Your task to perform on an android device: Open Yahoo.com Image 0: 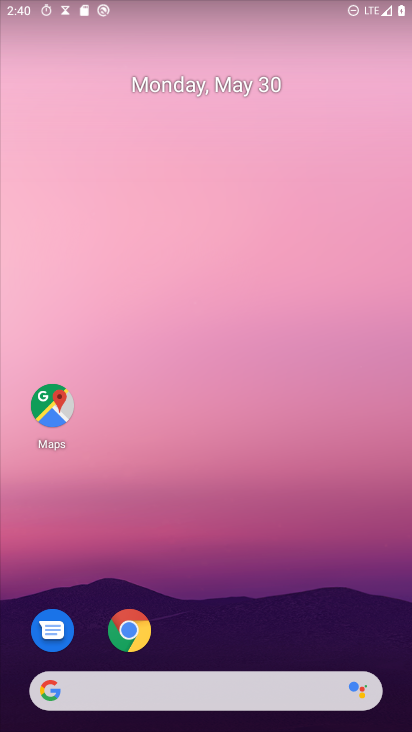
Step 0: drag from (288, 713) to (310, 203)
Your task to perform on an android device: Open Yahoo.com Image 1: 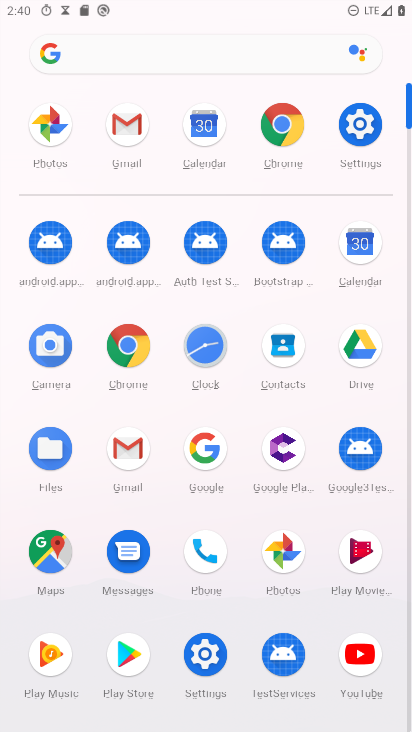
Step 1: click (294, 122)
Your task to perform on an android device: Open Yahoo.com Image 2: 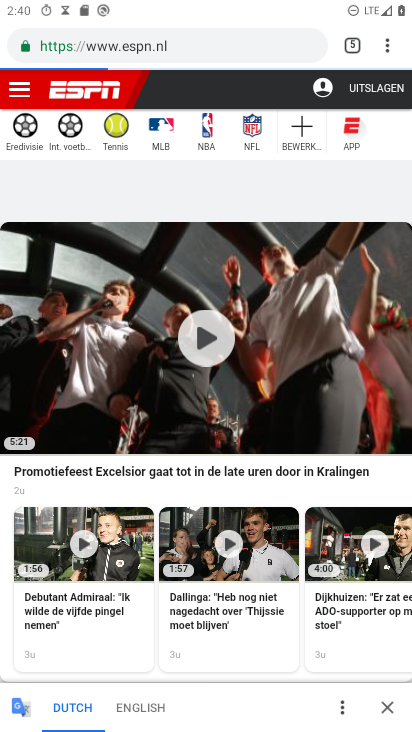
Step 2: click (190, 45)
Your task to perform on an android device: Open Yahoo.com Image 3: 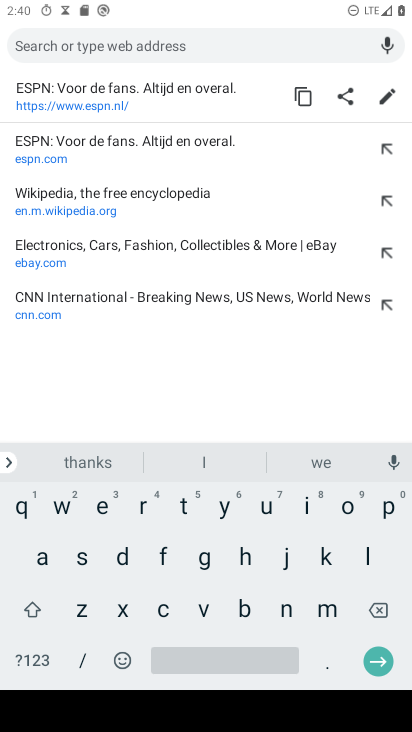
Step 3: click (227, 508)
Your task to perform on an android device: Open Yahoo.com Image 4: 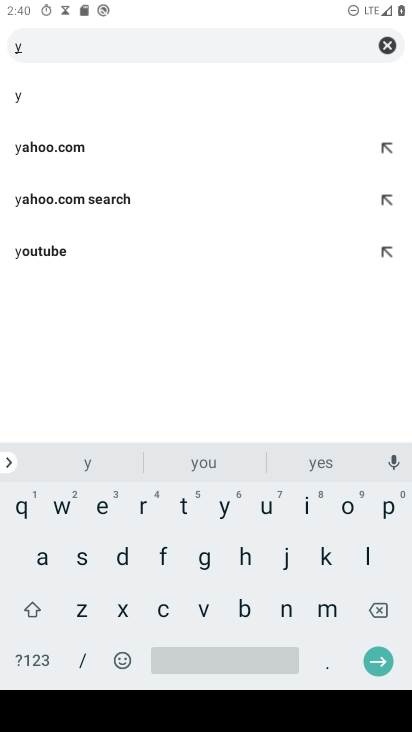
Step 4: click (108, 156)
Your task to perform on an android device: Open Yahoo.com Image 5: 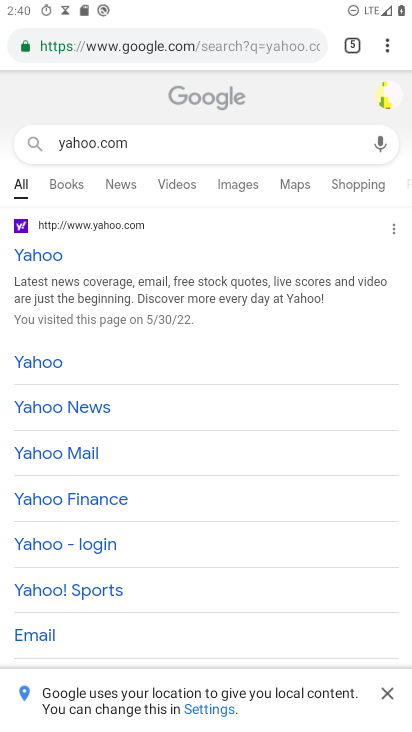
Step 5: click (56, 242)
Your task to perform on an android device: Open Yahoo.com Image 6: 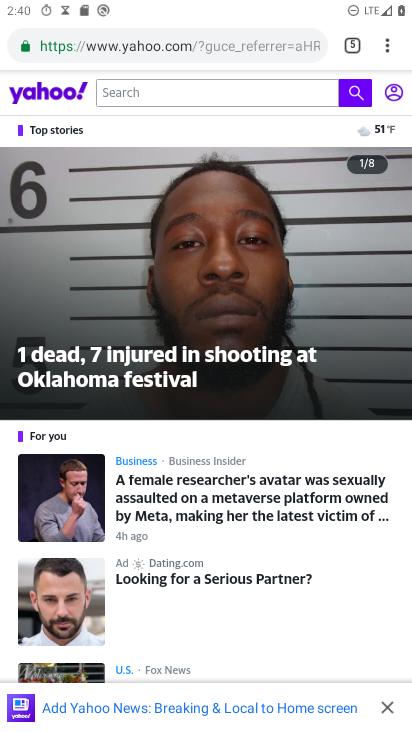
Step 6: task complete